Your task to perform on an android device: Show me productivity apps on the Play Store Image 0: 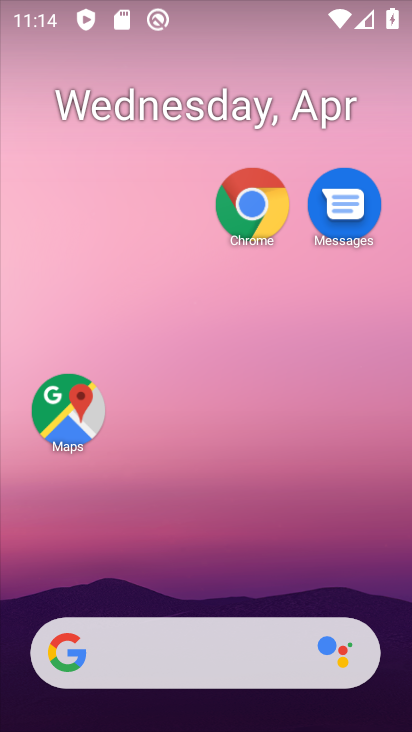
Step 0: drag from (205, 614) to (173, 21)
Your task to perform on an android device: Show me productivity apps on the Play Store Image 1: 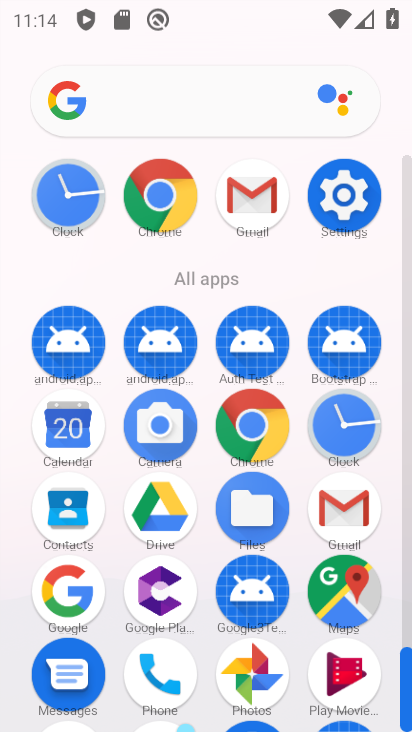
Step 1: drag from (197, 659) to (174, 51)
Your task to perform on an android device: Show me productivity apps on the Play Store Image 2: 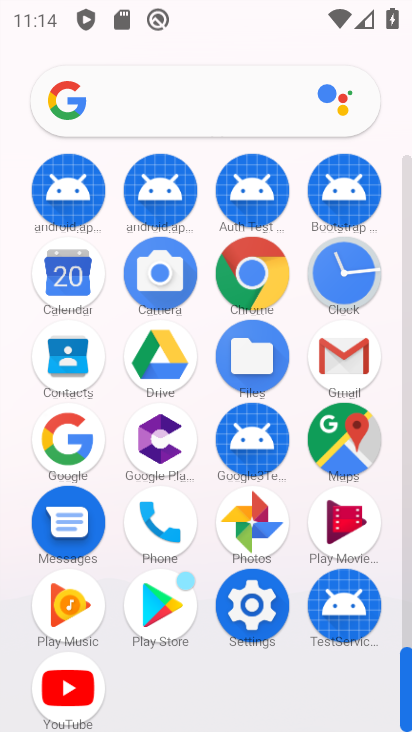
Step 2: click (158, 595)
Your task to perform on an android device: Show me productivity apps on the Play Store Image 3: 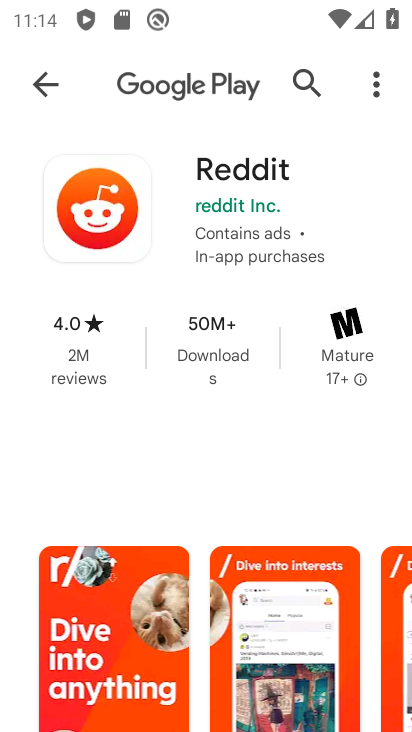
Step 3: click (40, 65)
Your task to perform on an android device: Show me productivity apps on the Play Store Image 4: 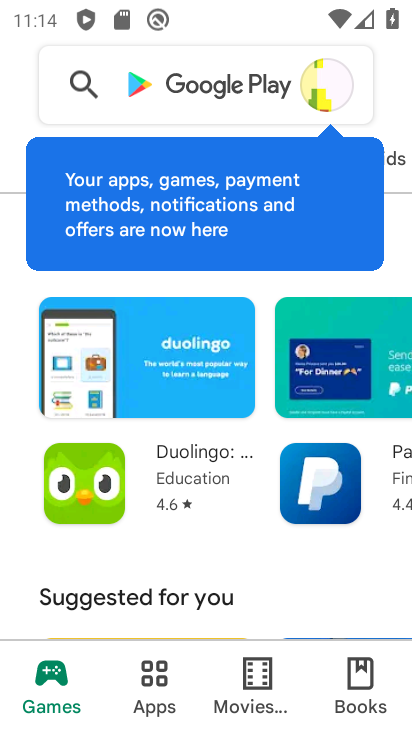
Step 4: click (167, 682)
Your task to perform on an android device: Show me productivity apps on the Play Store Image 5: 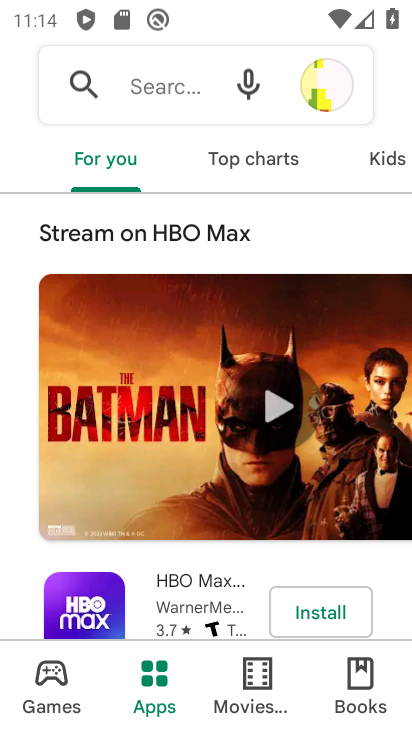
Step 5: drag from (378, 167) to (107, 142)
Your task to perform on an android device: Show me productivity apps on the Play Store Image 6: 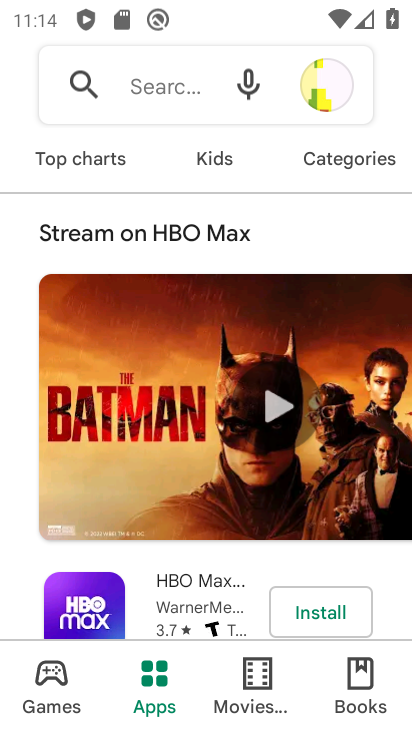
Step 6: click (335, 159)
Your task to perform on an android device: Show me productivity apps on the Play Store Image 7: 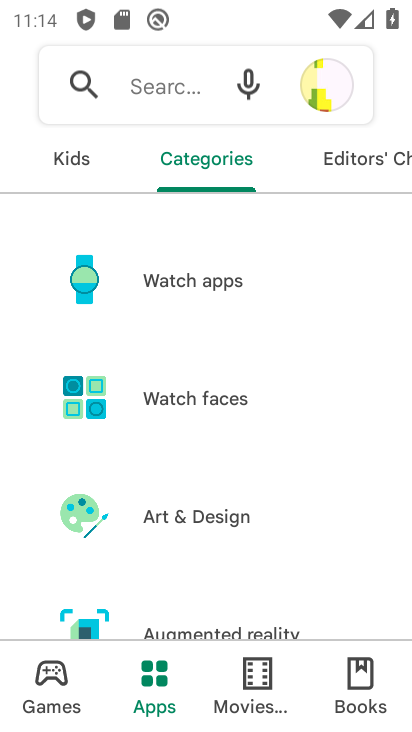
Step 7: drag from (276, 450) to (228, 0)
Your task to perform on an android device: Show me productivity apps on the Play Store Image 8: 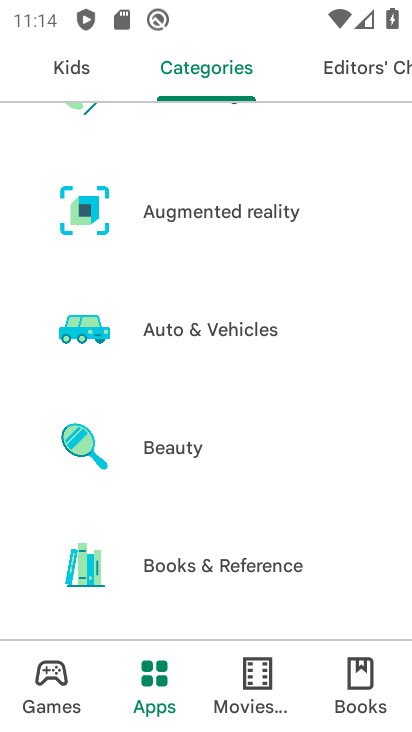
Step 8: drag from (139, 496) to (188, 15)
Your task to perform on an android device: Show me productivity apps on the Play Store Image 9: 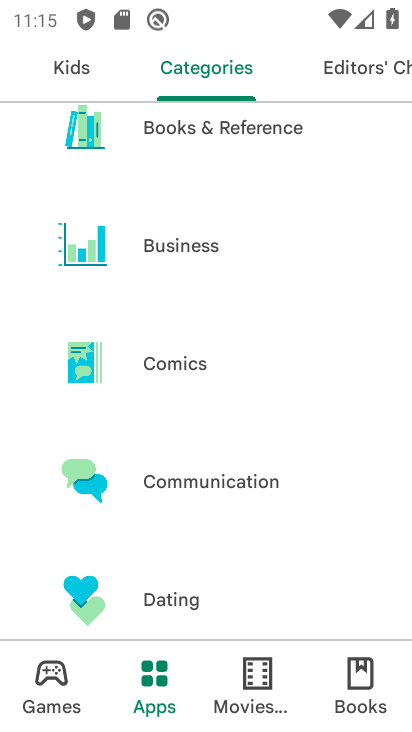
Step 9: drag from (212, 505) to (198, 140)
Your task to perform on an android device: Show me productivity apps on the Play Store Image 10: 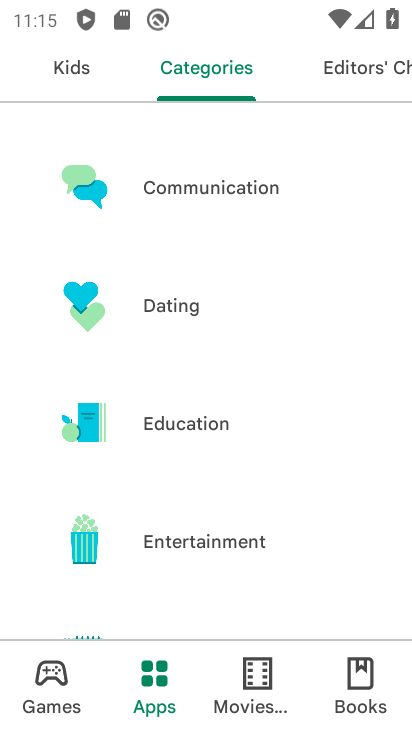
Step 10: drag from (221, 490) to (194, 51)
Your task to perform on an android device: Show me productivity apps on the Play Store Image 11: 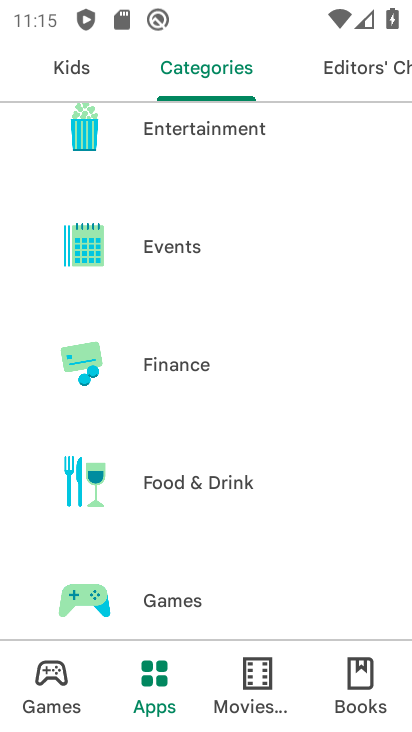
Step 11: drag from (213, 586) to (197, 0)
Your task to perform on an android device: Show me productivity apps on the Play Store Image 12: 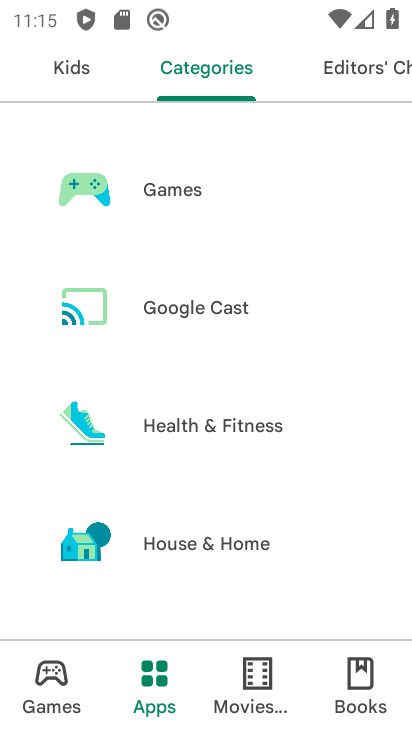
Step 12: drag from (217, 498) to (199, 29)
Your task to perform on an android device: Show me productivity apps on the Play Store Image 13: 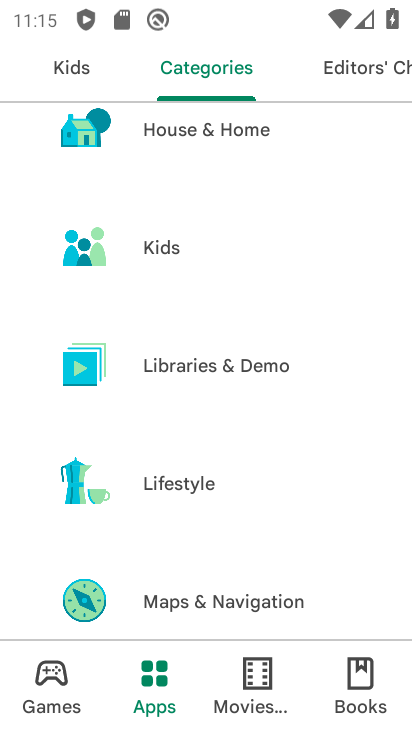
Step 13: drag from (201, 388) to (195, 4)
Your task to perform on an android device: Show me productivity apps on the Play Store Image 14: 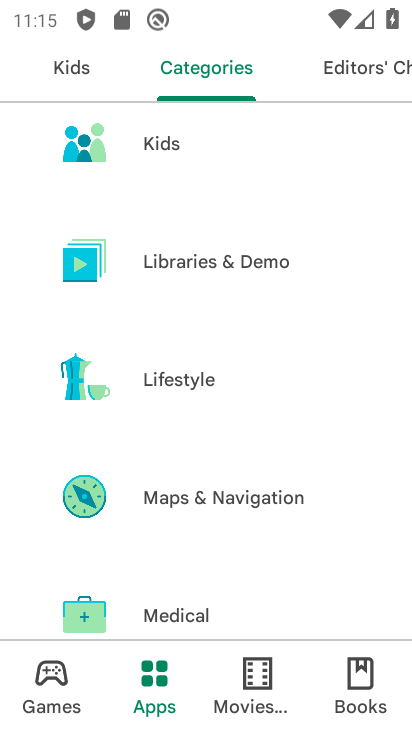
Step 14: drag from (247, 573) to (208, 6)
Your task to perform on an android device: Show me productivity apps on the Play Store Image 15: 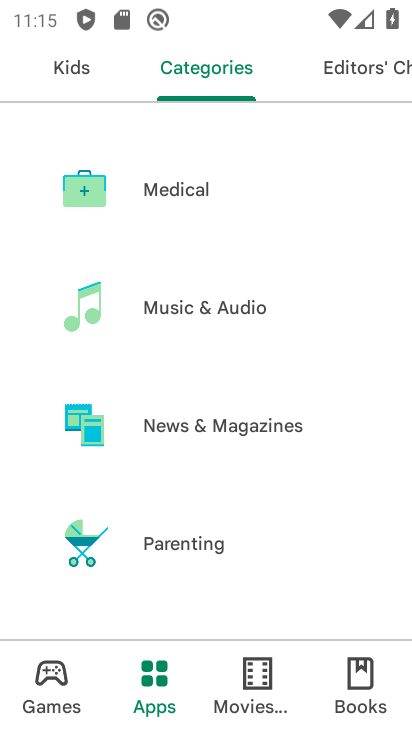
Step 15: drag from (204, 494) to (197, 14)
Your task to perform on an android device: Show me productivity apps on the Play Store Image 16: 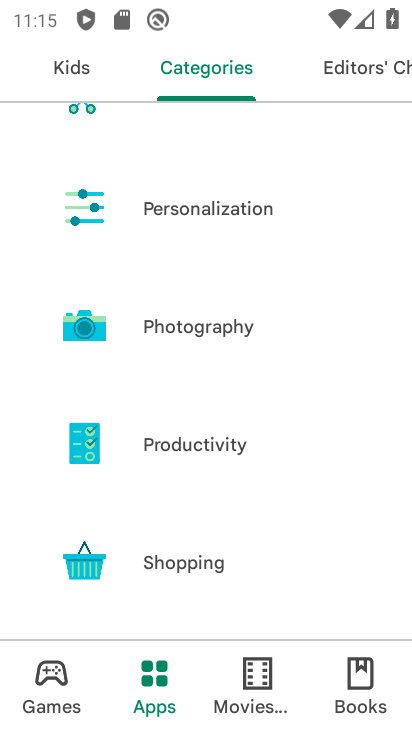
Step 16: click (208, 440)
Your task to perform on an android device: Show me productivity apps on the Play Store Image 17: 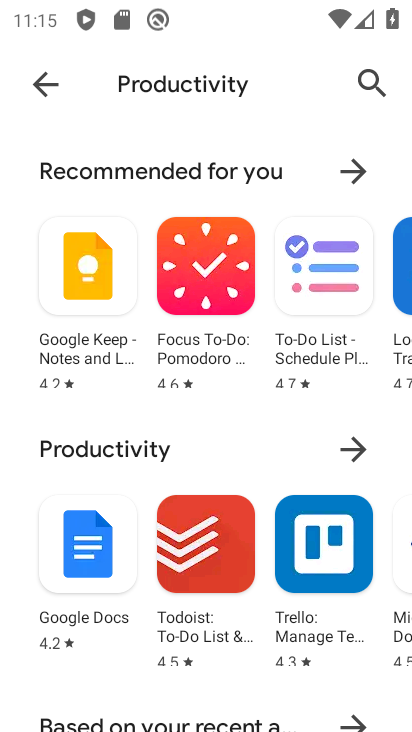
Step 17: task complete